Your task to perform on an android device: check android version Image 0: 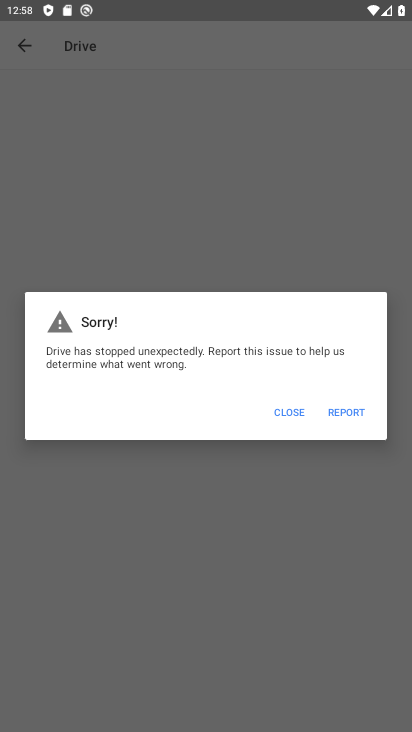
Step 0: press home button
Your task to perform on an android device: check android version Image 1: 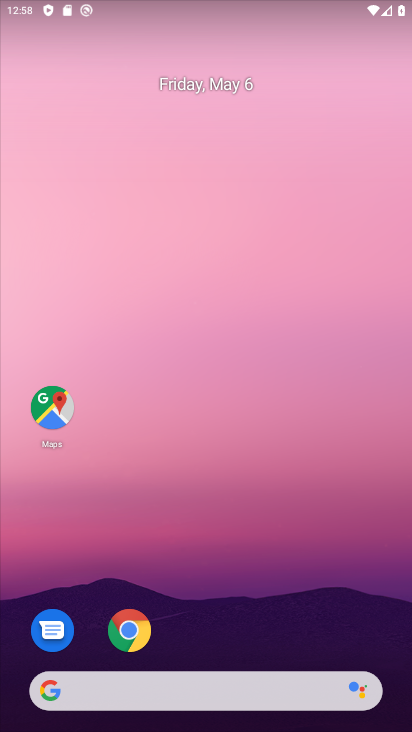
Step 1: drag from (343, 616) to (229, 118)
Your task to perform on an android device: check android version Image 2: 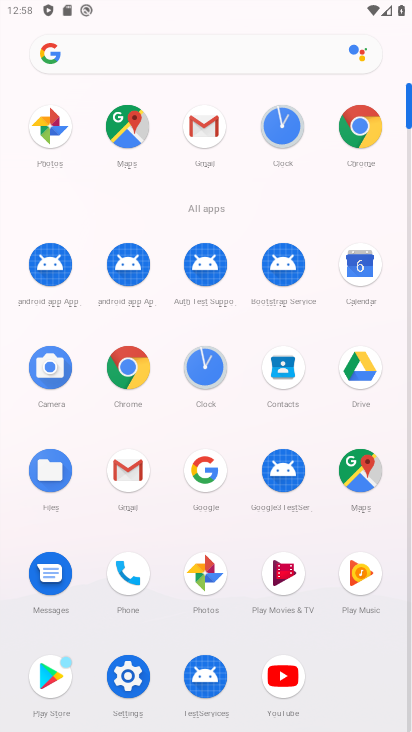
Step 2: click (137, 663)
Your task to perform on an android device: check android version Image 3: 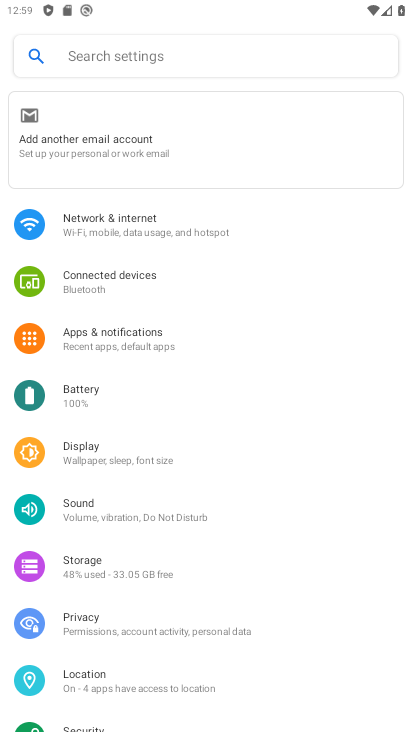
Step 3: drag from (228, 557) to (240, 210)
Your task to perform on an android device: check android version Image 4: 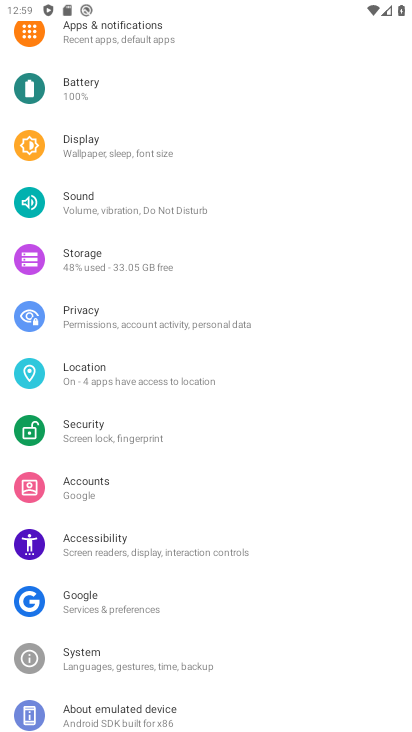
Step 4: drag from (228, 616) to (209, 152)
Your task to perform on an android device: check android version Image 5: 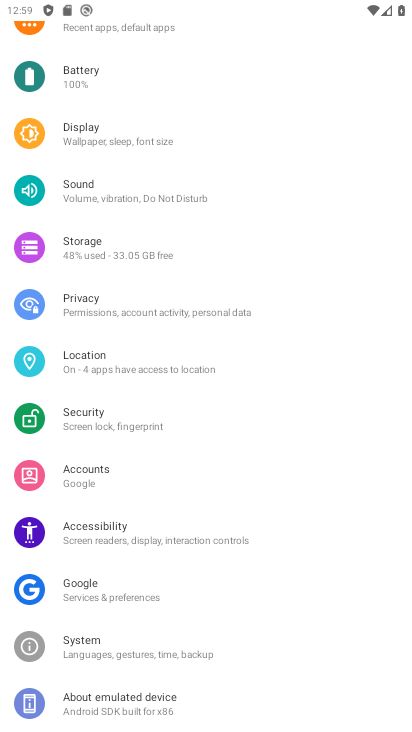
Step 5: click (117, 696)
Your task to perform on an android device: check android version Image 6: 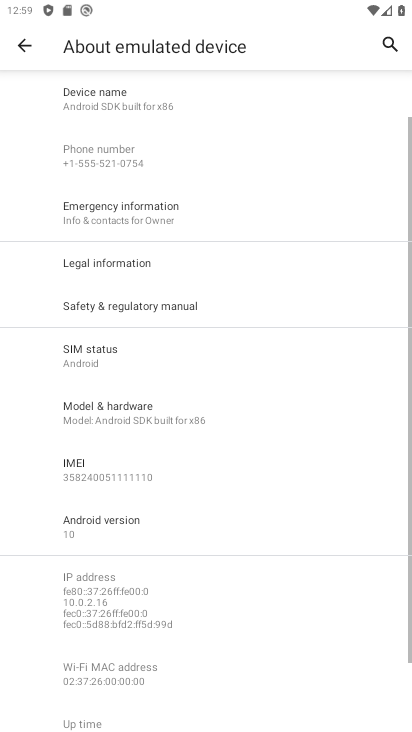
Step 6: drag from (220, 631) to (199, 517)
Your task to perform on an android device: check android version Image 7: 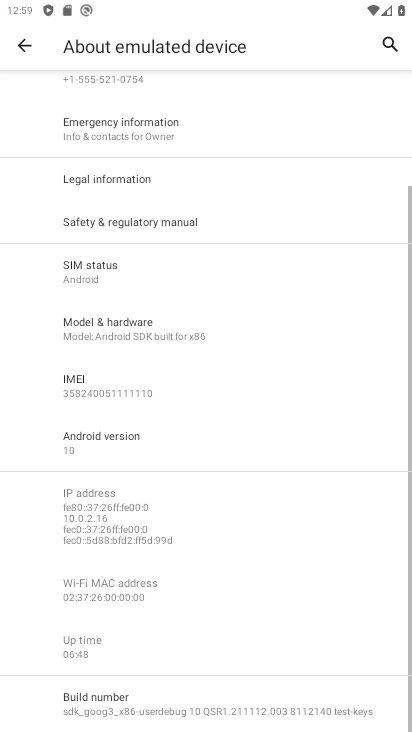
Step 7: click (147, 442)
Your task to perform on an android device: check android version Image 8: 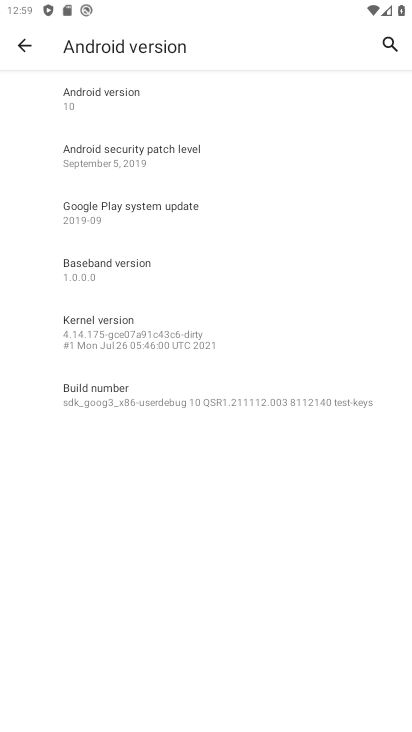
Step 8: click (116, 104)
Your task to perform on an android device: check android version Image 9: 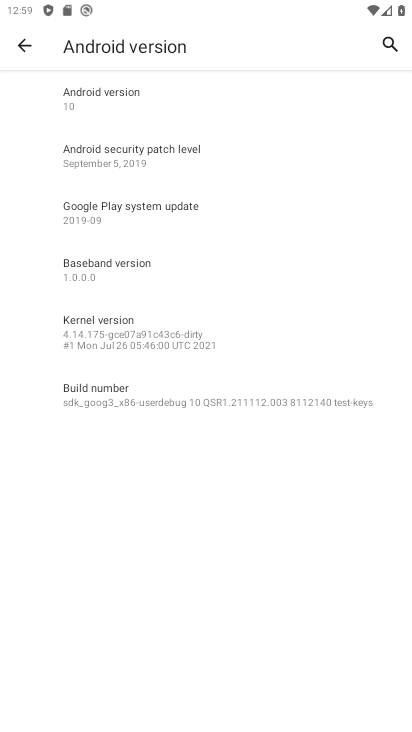
Step 9: task complete